Your task to perform on an android device: open a bookmark in the chrome app Image 0: 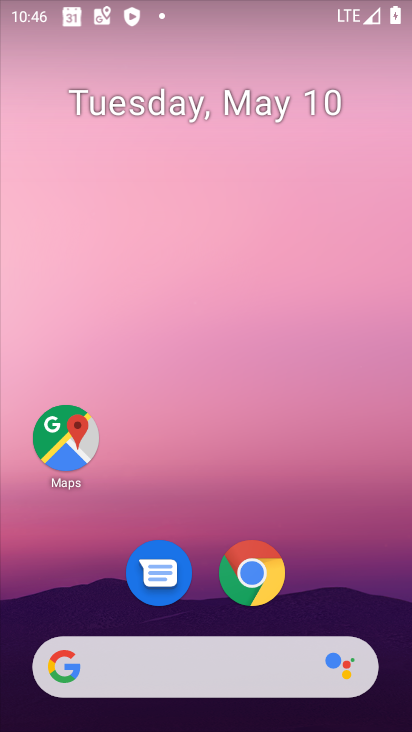
Step 0: click (249, 564)
Your task to perform on an android device: open a bookmark in the chrome app Image 1: 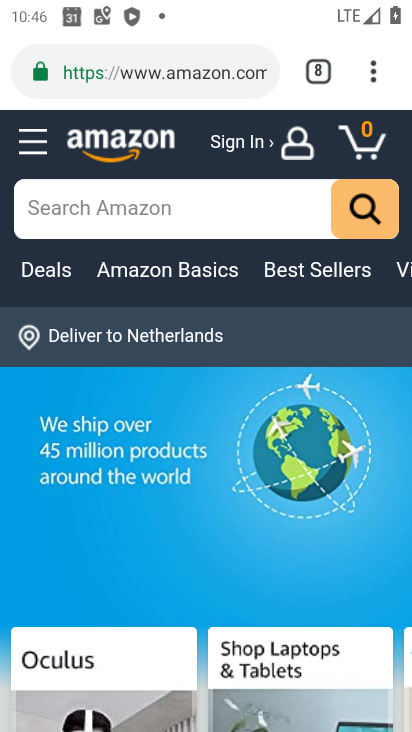
Step 1: click (374, 67)
Your task to perform on an android device: open a bookmark in the chrome app Image 2: 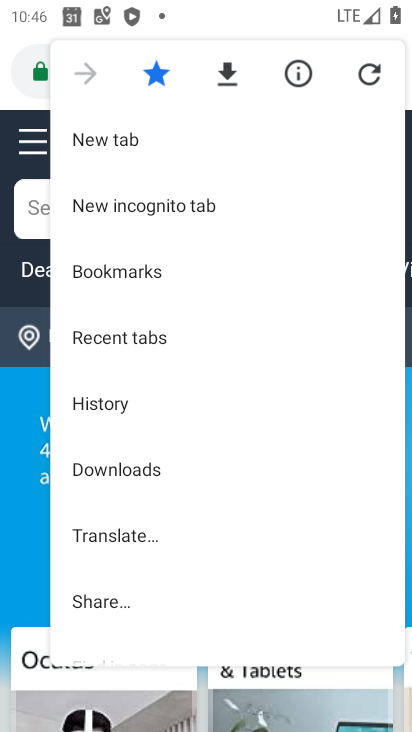
Step 2: click (122, 267)
Your task to perform on an android device: open a bookmark in the chrome app Image 3: 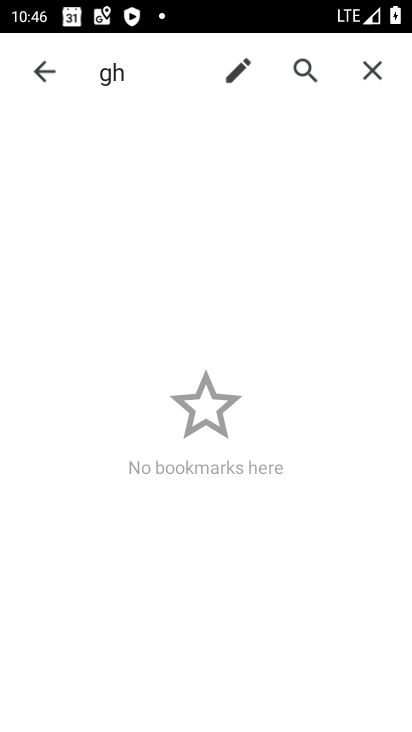
Step 3: task complete